Your task to perform on an android device: toggle sleep mode Image 0: 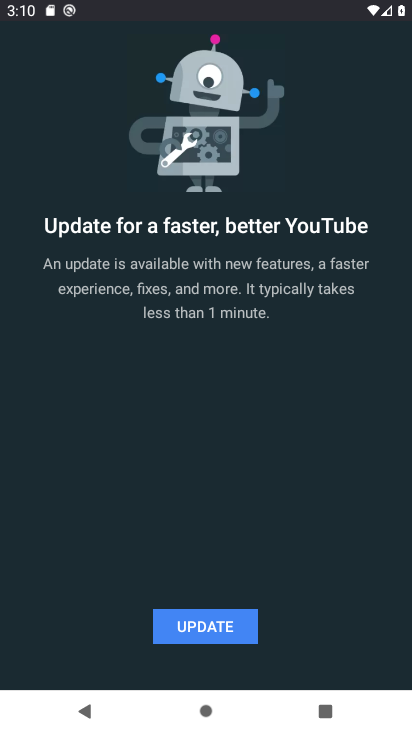
Step 0: press home button
Your task to perform on an android device: toggle sleep mode Image 1: 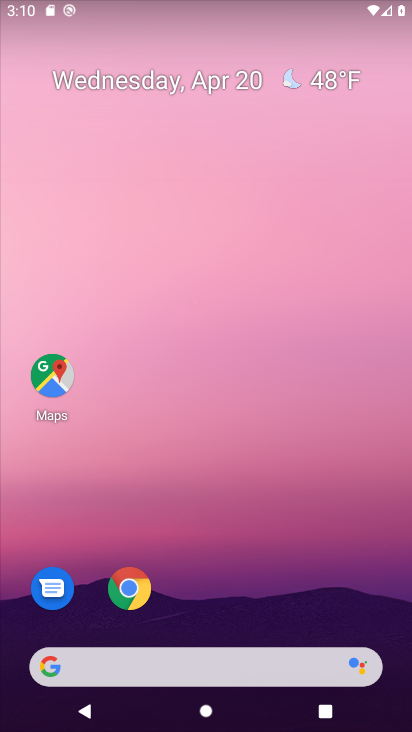
Step 1: drag from (308, 571) to (336, 212)
Your task to perform on an android device: toggle sleep mode Image 2: 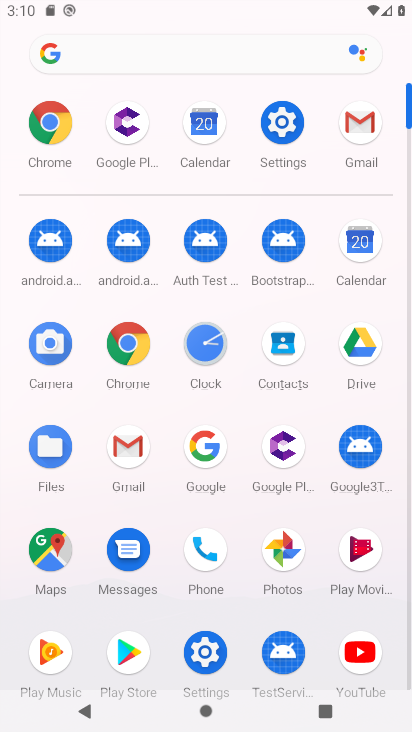
Step 2: click (280, 124)
Your task to perform on an android device: toggle sleep mode Image 3: 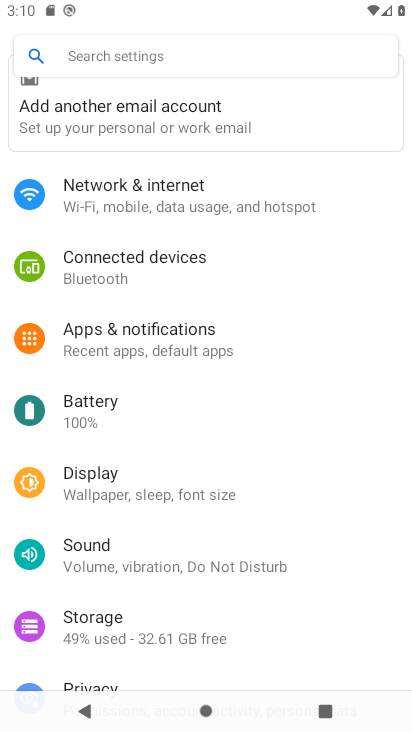
Step 3: drag from (344, 563) to (346, 340)
Your task to perform on an android device: toggle sleep mode Image 4: 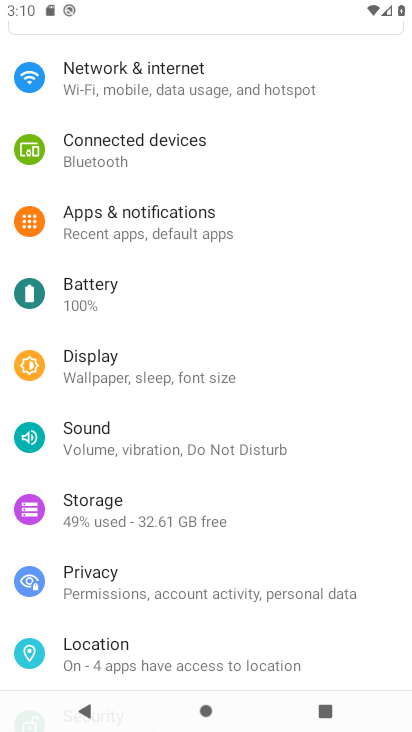
Step 4: drag from (345, 606) to (342, 408)
Your task to perform on an android device: toggle sleep mode Image 5: 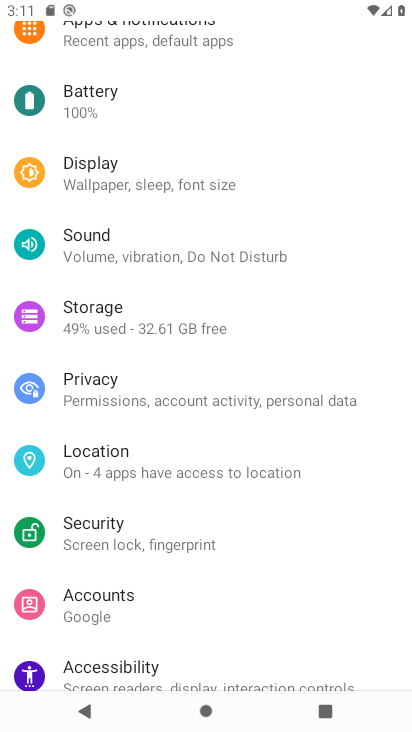
Step 5: drag from (347, 579) to (351, 370)
Your task to perform on an android device: toggle sleep mode Image 6: 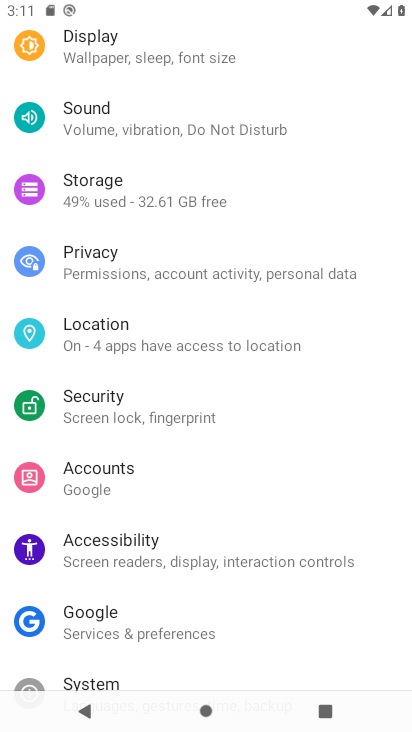
Step 6: drag from (353, 635) to (356, 448)
Your task to perform on an android device: toggle sleep mode Image 7: 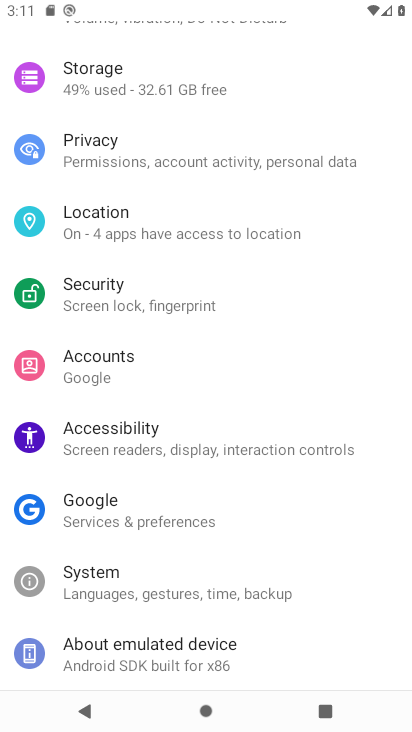
Step 7: drag from (356, 507) to (378, 344)
Your task to perform on an android device: toggle sleep mode Image 8: 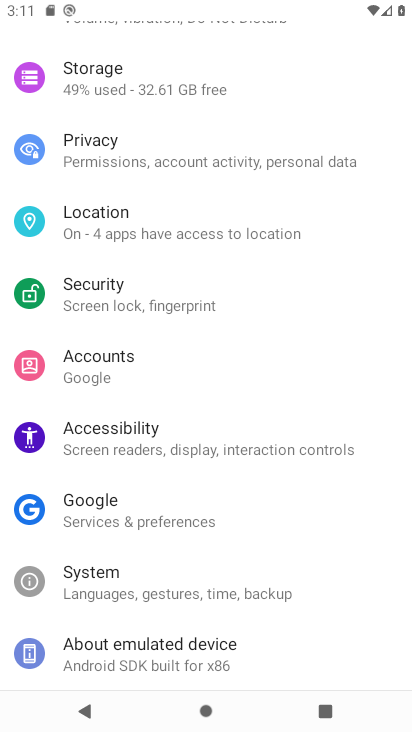
Step 8: drag from (378, 292) to (378, 461)
Your task to perform on an android device: toggle sleep mode Image 9: 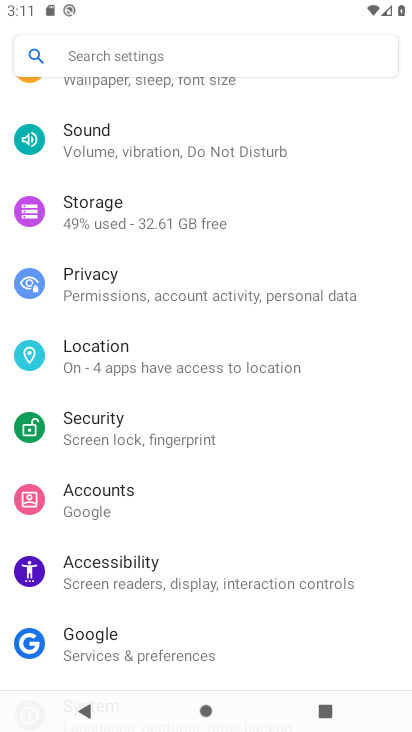
Step 9: drag from (370, 235) to (355, 459)
Your task to perform on an android device: toggle sleep mode Image 10: 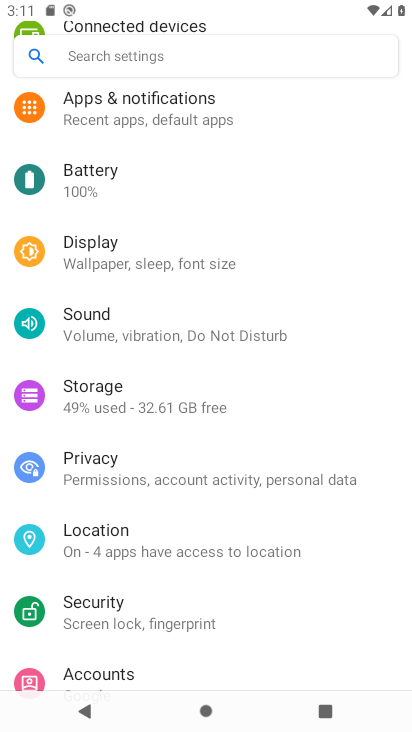
Step 10: drag from (349, 244) to (355, 446)
Your task to perform on an android device: toggle sleep mode Image 11: 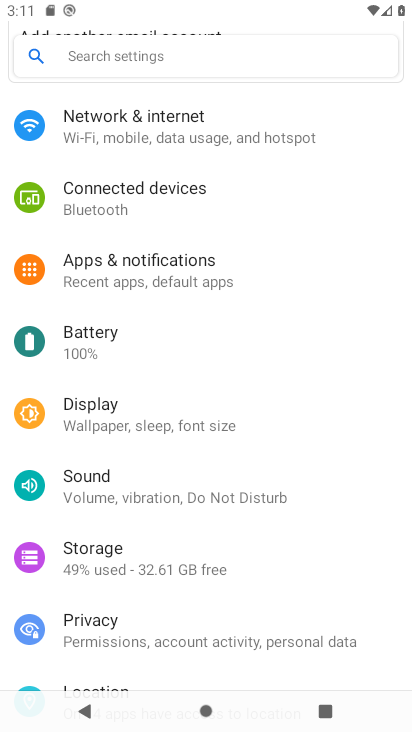
Step 11: drag from (339, 208) to (337, 363)
Your task to perform on an android device: toggle sleep mode Image 12: 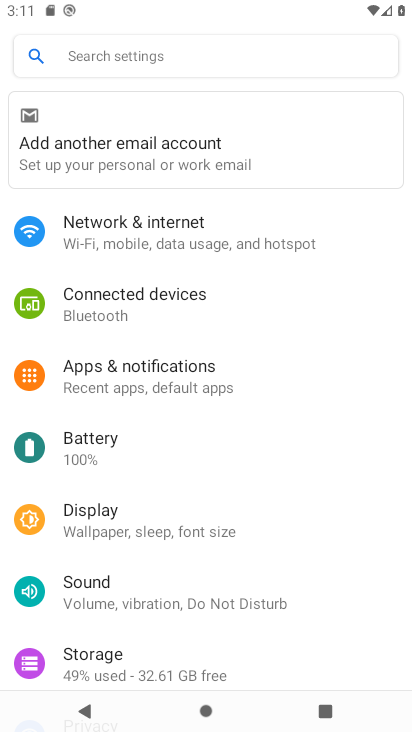
Step 12: click (169, 533)
Your task to perform on an android device: toggle sleep mode Image 13: 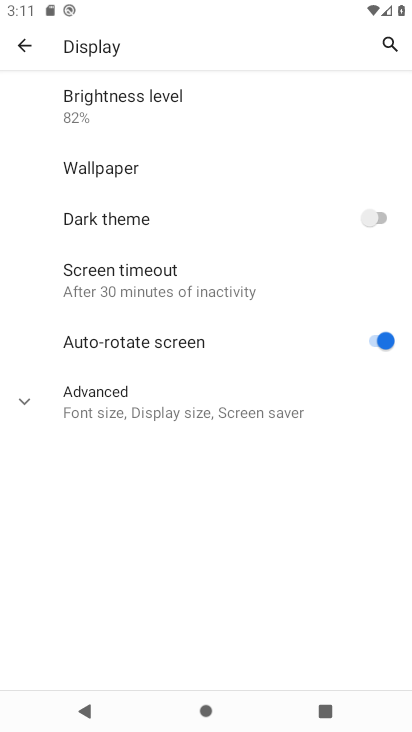
Step 13: click (162, 399)
Your task to perform on an android device: toggle sleep mode Image 14: 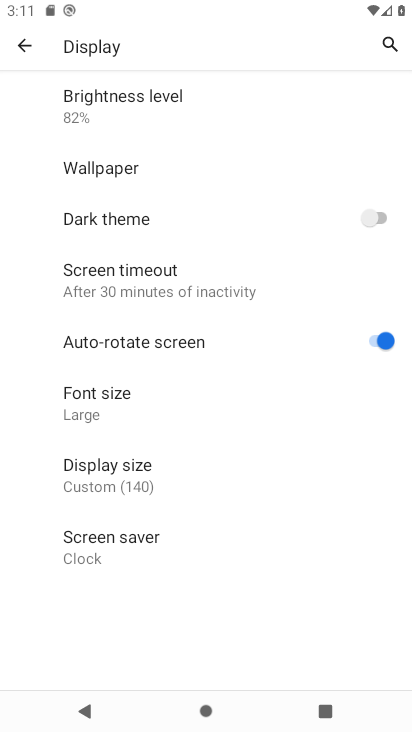
Step 14: task complete